Your task to perform on an android device: turn notification dots on Image 0: 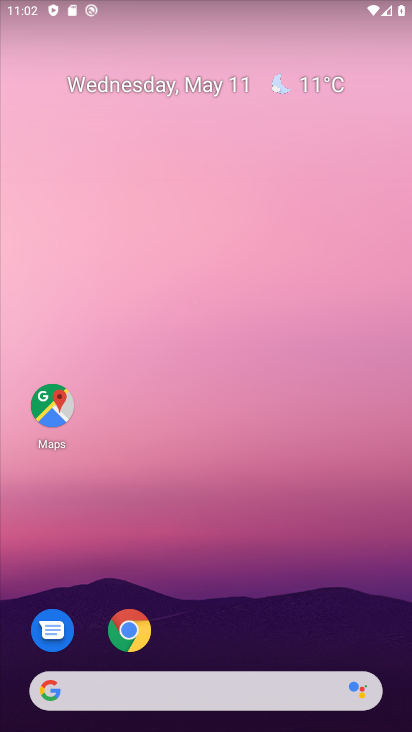
Step 0: drag from (221, 633) to (258, 316)
Your task to perform on an android device: turn notification dots on Image 1: 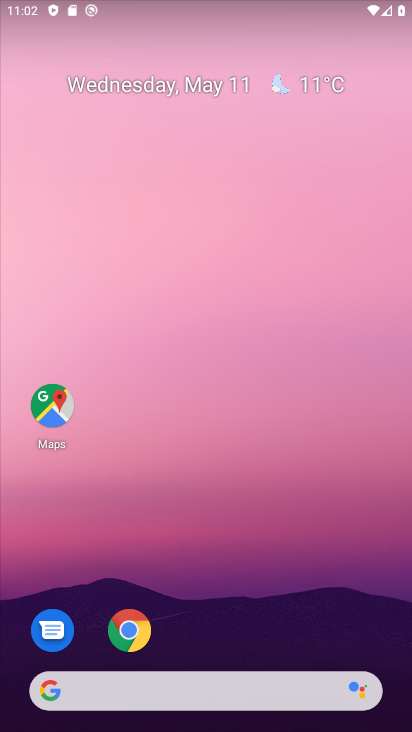
Step 1: drag from (191, 646) to (231, 273)
Your task to perform on an android device: turn notification dots on Image 2: 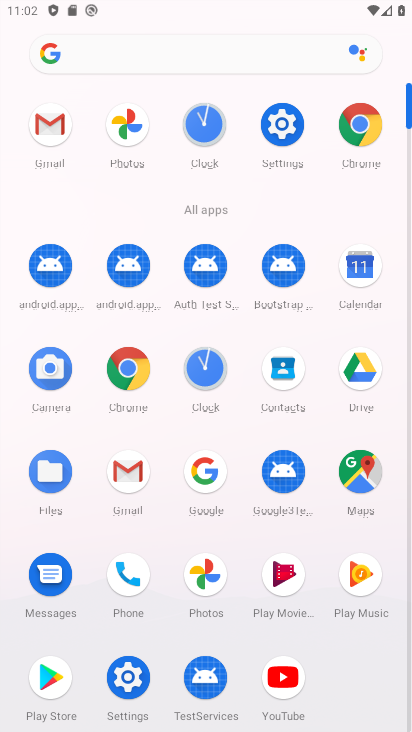
Step 2: click (127, 677)
Your task to perform on an android device: turn notification dots on Image 3: 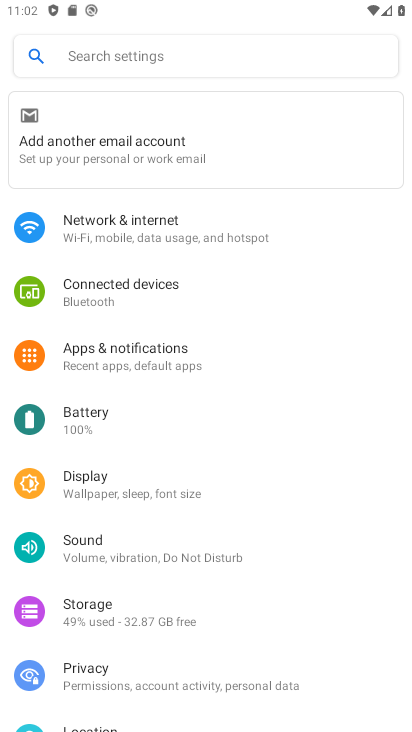
Step 3: click (139, 358)
Your task to perform on an android device: turn notification dots on Image 4: 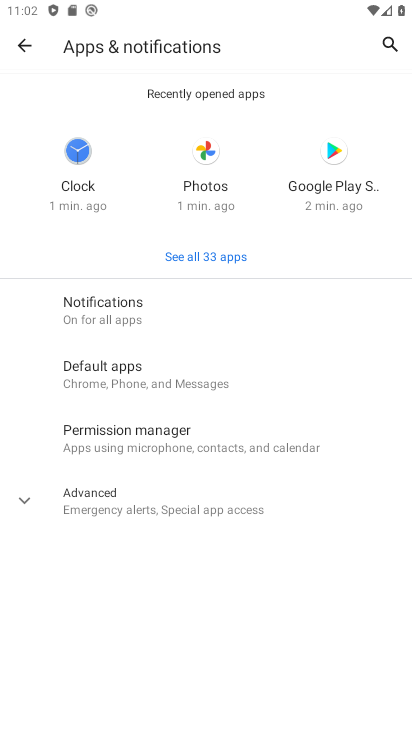
Step 4: click (137, 320)
Your task to perform on an android device: turn notification dots on Image 5: 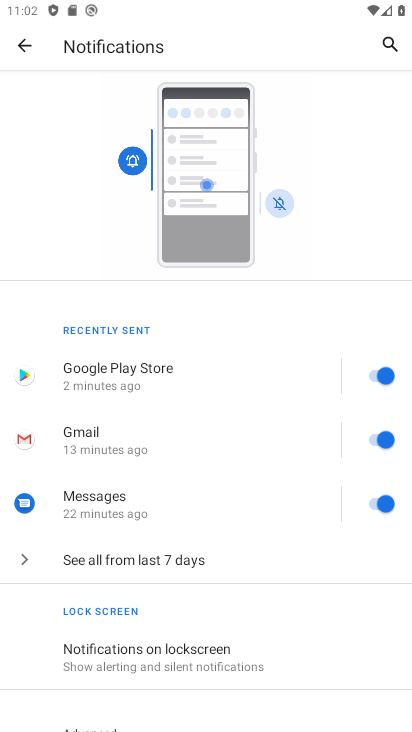
Step 5: drag from (181, 616) to (209, 357)
Your task to perform on an android device: turn notification dots on Image 6: 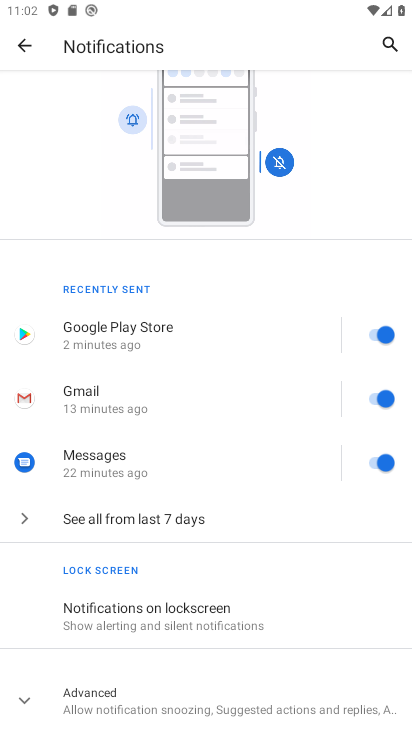
Step 6: click (27, 692)
Your task to perform on an android device: turn notification dots on Image 7: 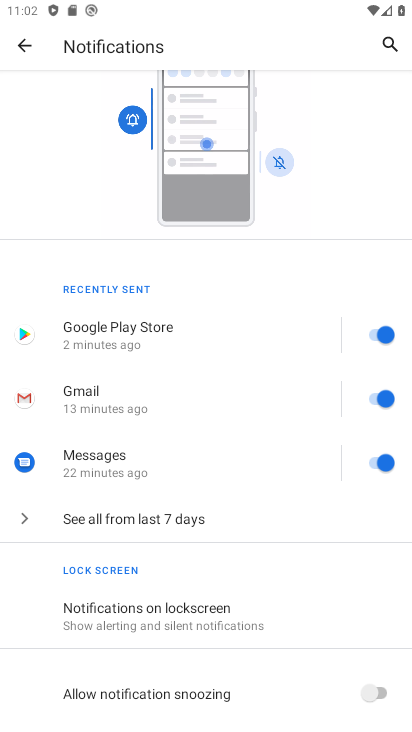
Step 7: drag from (279, 648) to (320, 327)
Your task to perform on an android device: turn notification dots on Image 8: 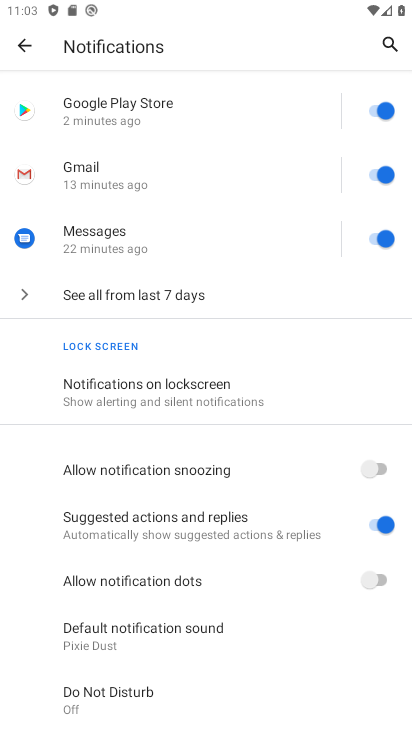
Step 8: drag from (141, 660) to (160, 565)
Your task to perform on an android device: turn notification dots on Image 9: 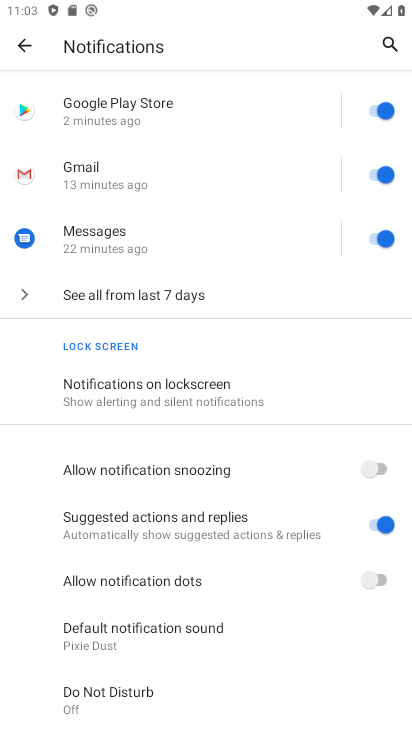
Step 9: click (362, 579)
Your task to perform on an android device: turn notification dots on Image 10: 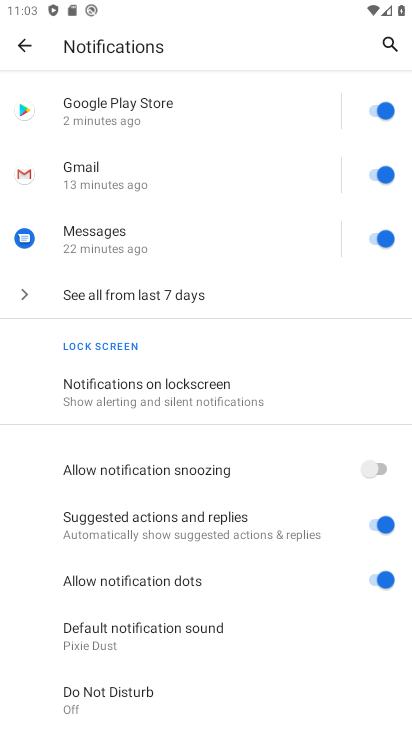
Step 10: task complete